Your task to perform on an android device: open app "Duolingo: language lessons" (install if not already installed), go to login, and select forgot password Image 0: 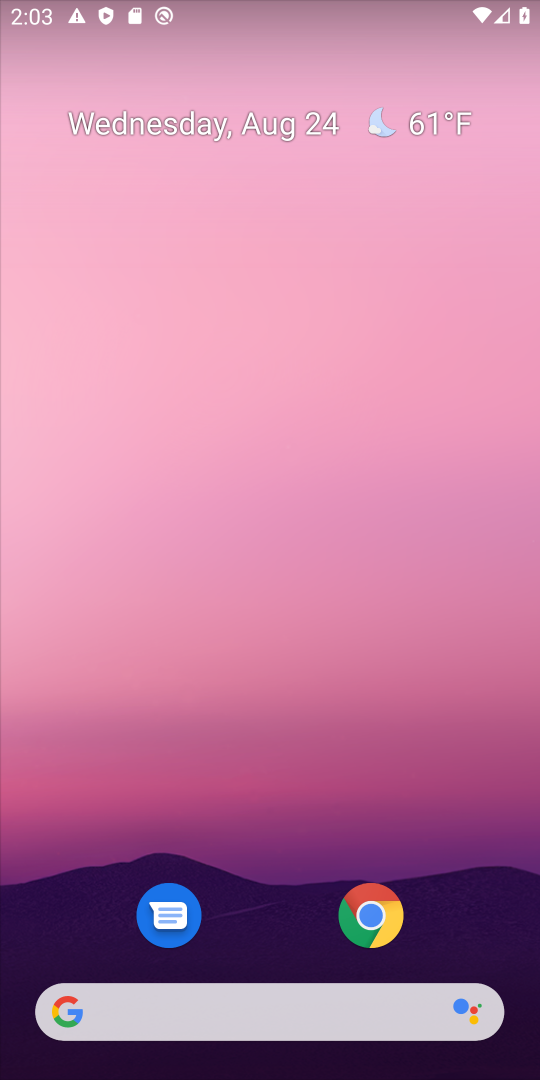
Step 0: drag from (298, 876) to (350, 214)
Your task to perform on an android device: open app "Duolingo: language lessons" (install if not already installed), go to login, and select forgot password Image 1: 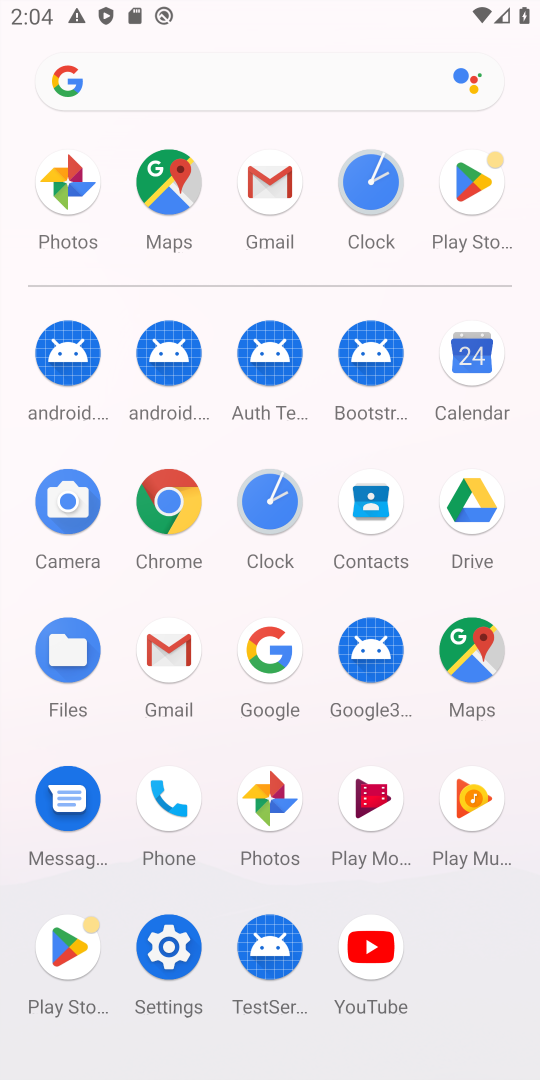
Step 1: click (461, 186)
Your task to perform on an android device: open app "Duolingo: language lessons" (install if not already installed), go to login, and select forgot password Image 2: 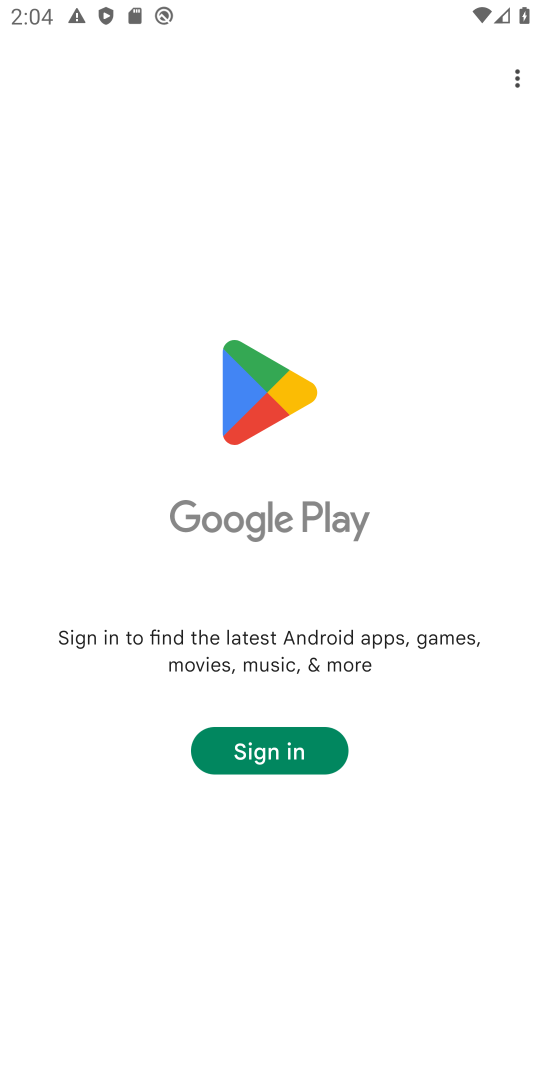
Step 2: task complete